Your task to perform on an android device: What's on my calendar today? Image 0: 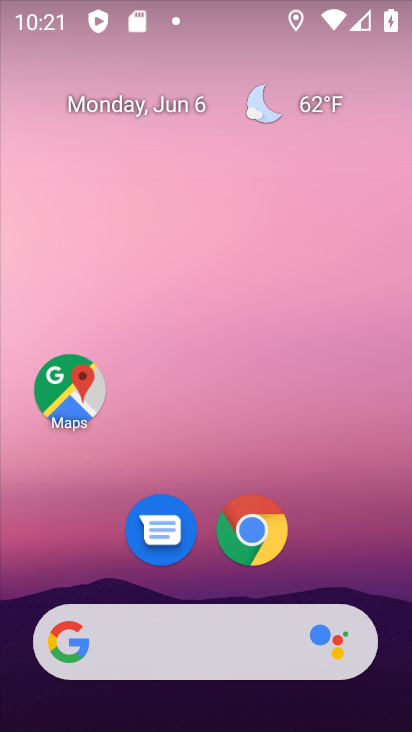
Step 0: drag from (330, 514) to (339, 49)
Your task to perform on an android device: What's on my calendar today? Image 1: 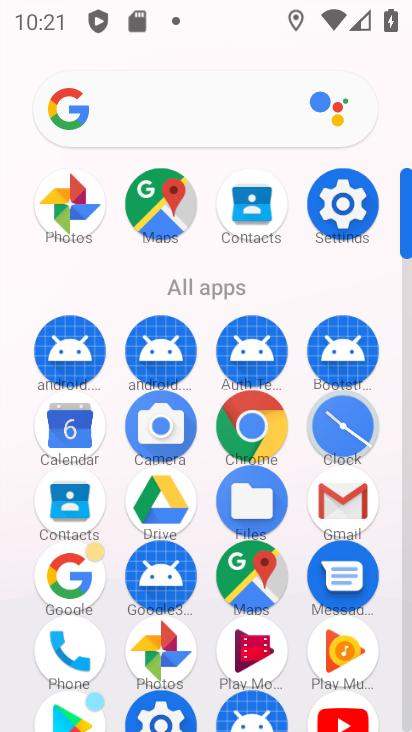
Step 1: click (67, 434)
Your task to perform on an android device: What's on my calendar today? Image 2: 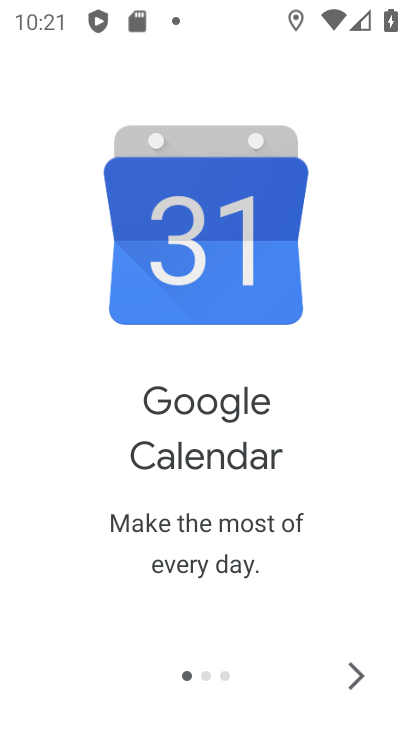
Step 2: click (358, 658)
Your task to perform on an android device: What's on my calendar today? Image 3: 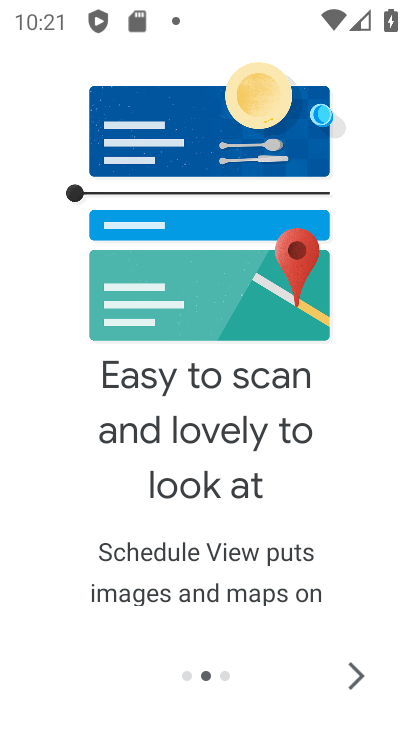
Step 3: click (357, 658)
Your task to perform on an android device: What's on my calendar today? Image 4: 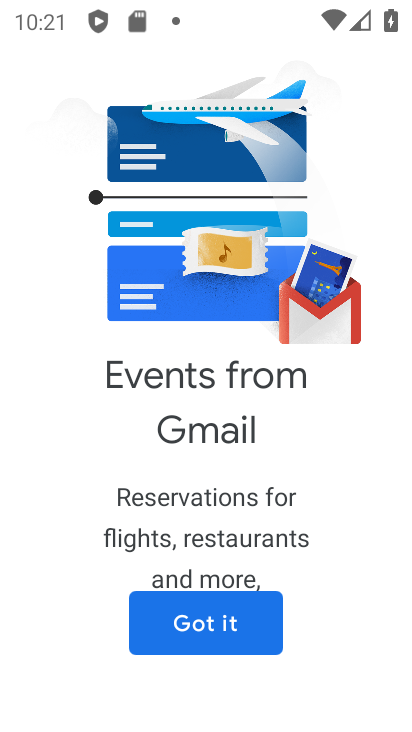
Step 4: click (218, 618)
Your task to perform on an android device: What's on my calendar today? Image 5: 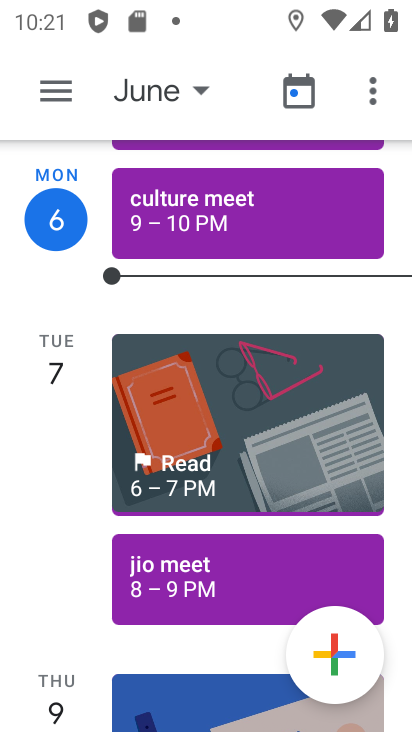
Step 5: click (169, 96)
Your task to perform on an android device: What's on my calendar today? Image 6: 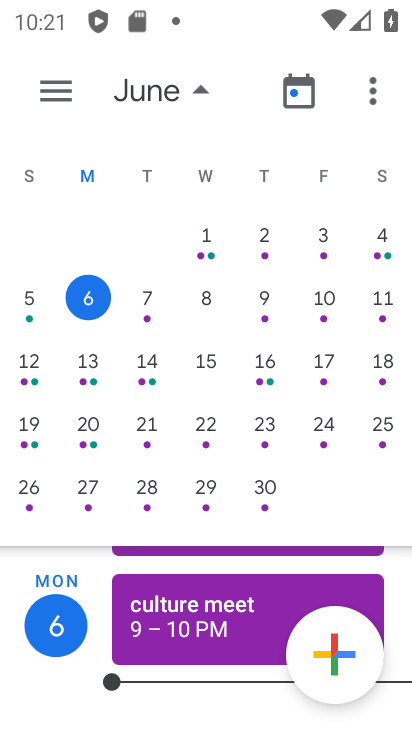
Step 6: task complete